Your task to perform on an android device: Go to Google maps Image 0: 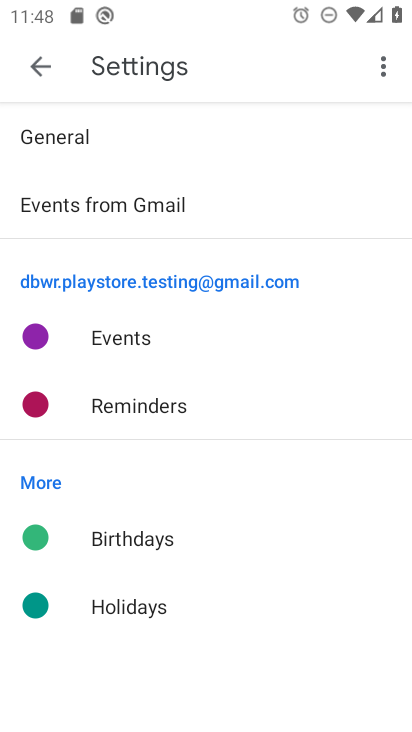
Step 0: press home button
Your task to perform on an android device: Go to Google maps Image 1: 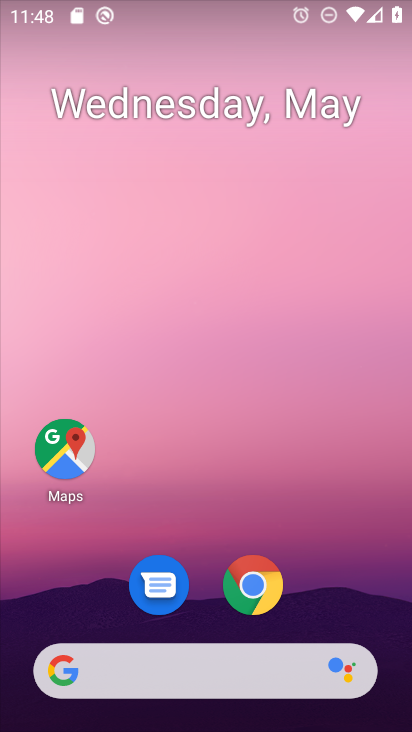
Step 1: click (61, 446)
Your task to perform on an android device: Go to Google maps Image 2: 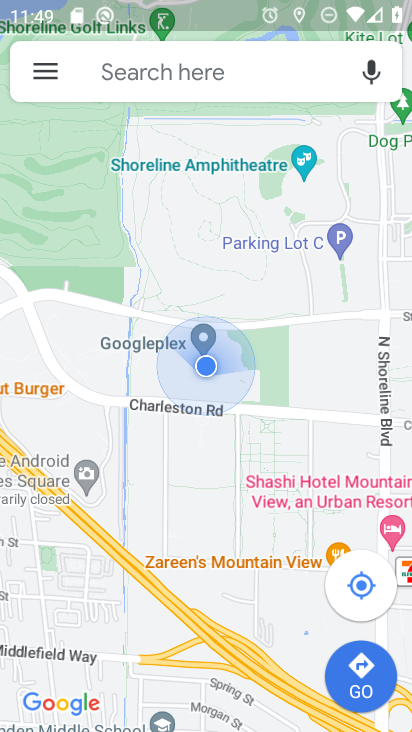
Step 2: task complete